Your task to perform on an android device: set the timer Image 0: 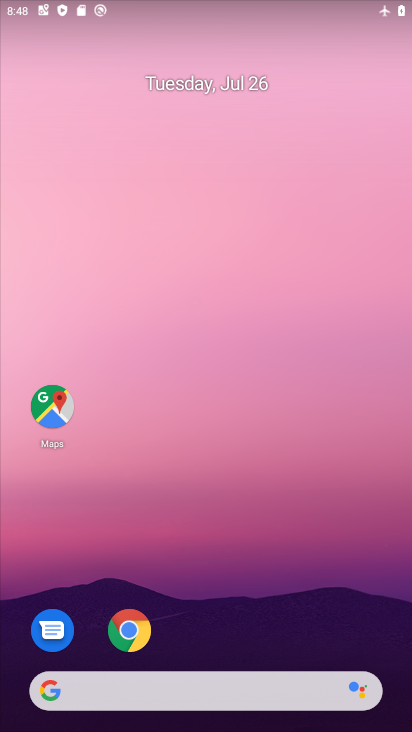
Step 0: drag from (269, 662) to (258, 300)
Your task to perform on an android device: set the timer Image 1: 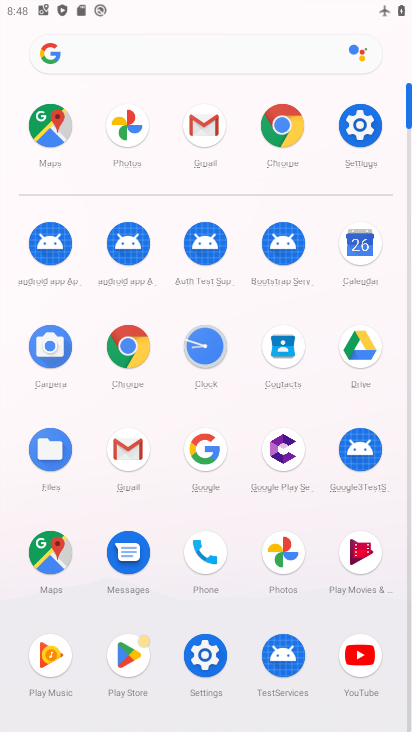
Step 1: click (209, 360)
Your task to perform on an android device: set the timer Image 2: 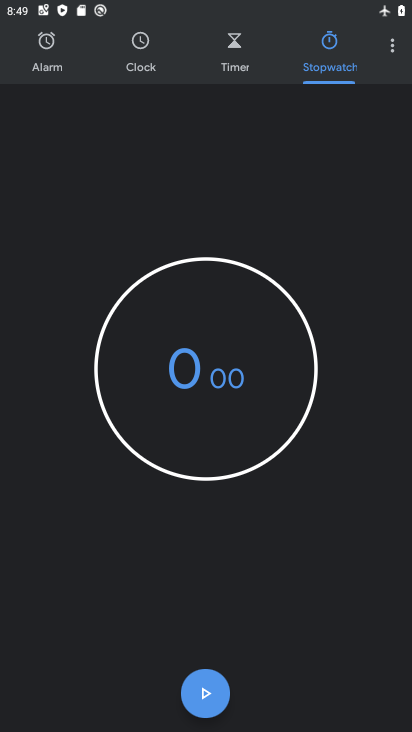
Step 2: click (251, 55)
Your task to perform on an android device: set the timer Image 3: 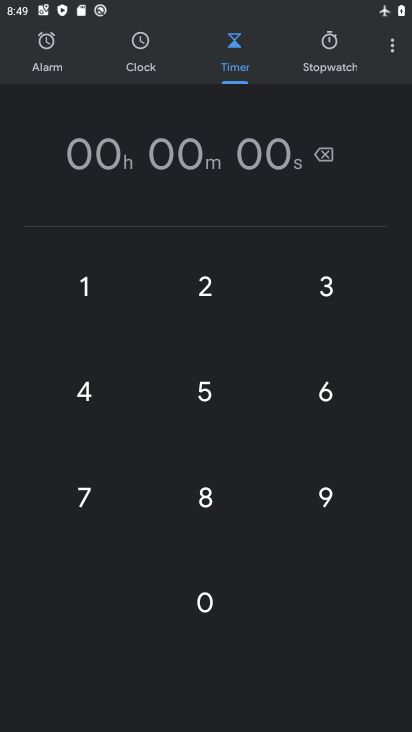
Step 3: task complete